Your task to perform on an android device: delete location history Image 0: 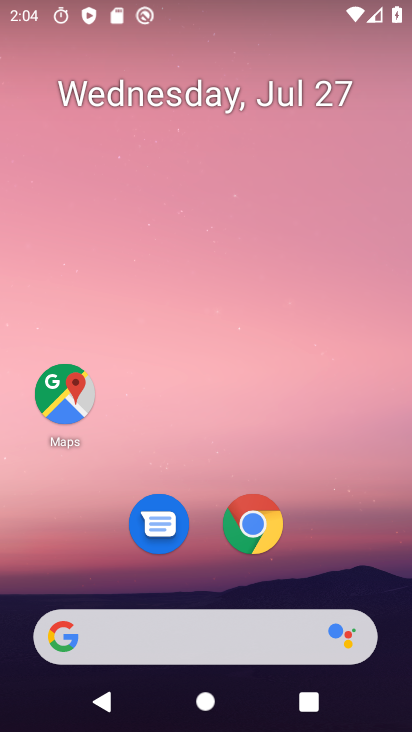
Step 0: drag from (334, 543) to (349, 477)
Your task to perform on an android device: delete location history Image 1: 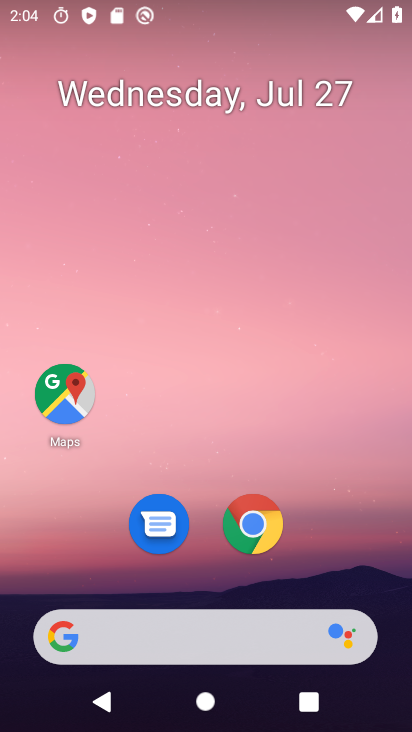
Step 1: click (72, 387)
Your task to perform on an android device: delete location history Image 2: 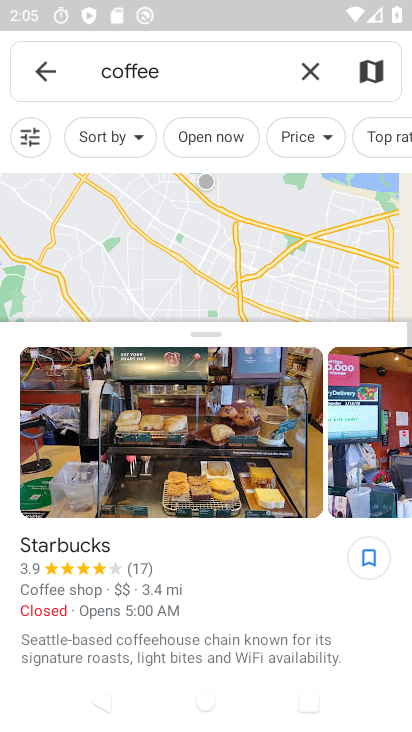
Step 2: click (48, 69)
Your task to perform on an android device: delete location history Image 3: 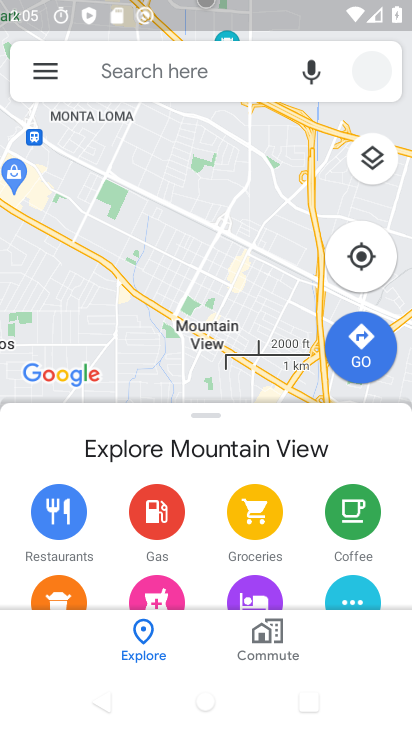
Step 3: click (48, 68)
Your task to perform on an android device: delete location history Image 4: 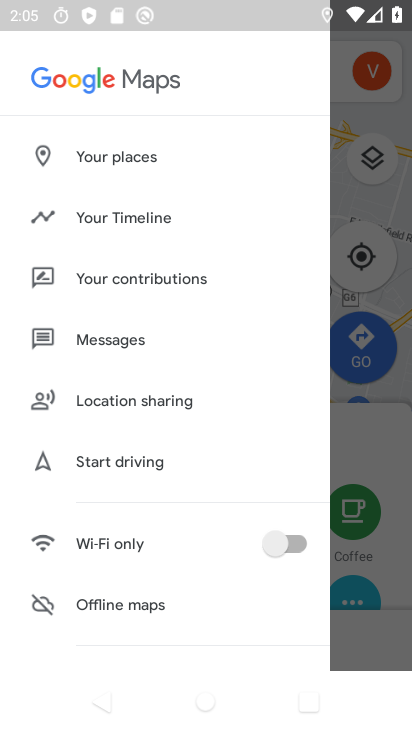
Step 4: click (138, 203)
Your task to perform on an android device: delete location history Image 5: 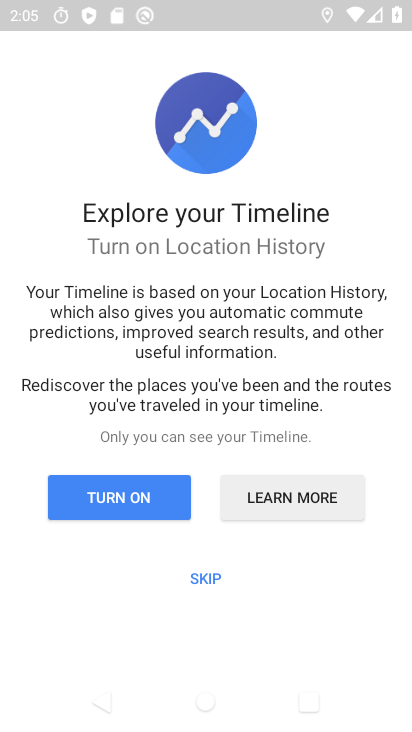
Step 5: click (168, 491)
Your task to perform on an android device: delete location history Image 6: 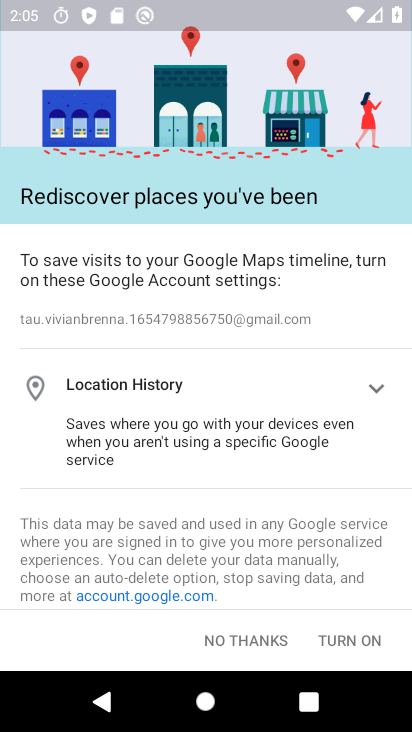
Step 6: click (345, 640)
Your task to perform on an android device: delete location history Image 7: 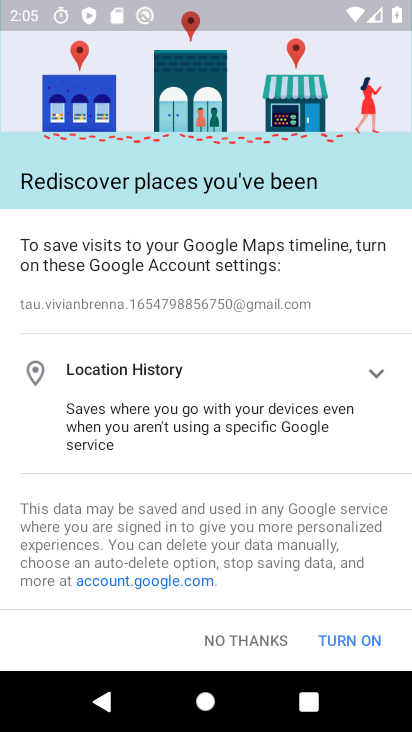
Step 7: click (345, 634)
Your task to perform on an android device: delete location history Image 8: 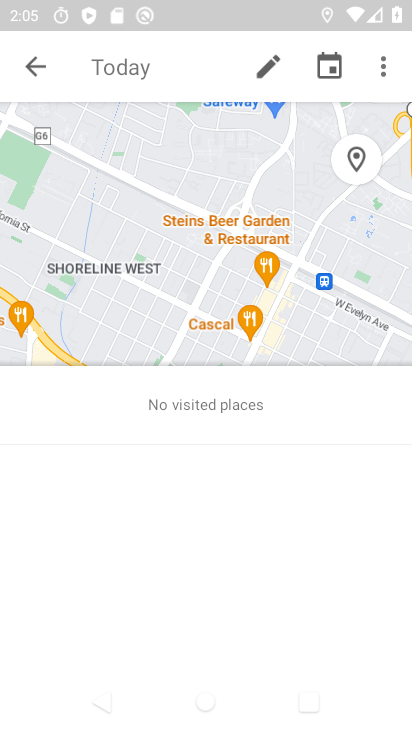
Step 8: click (380, 71)
Your task to perform on an android device: delete location history Image 9: 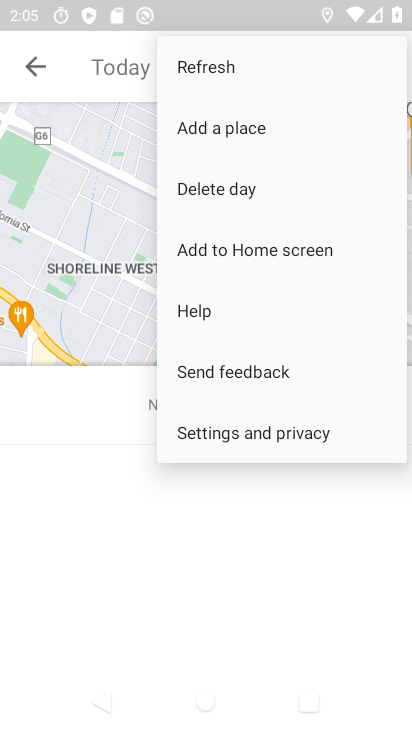
Step 9: click (290, 431)
Your task to perform on an android device: delete location history Image 10: 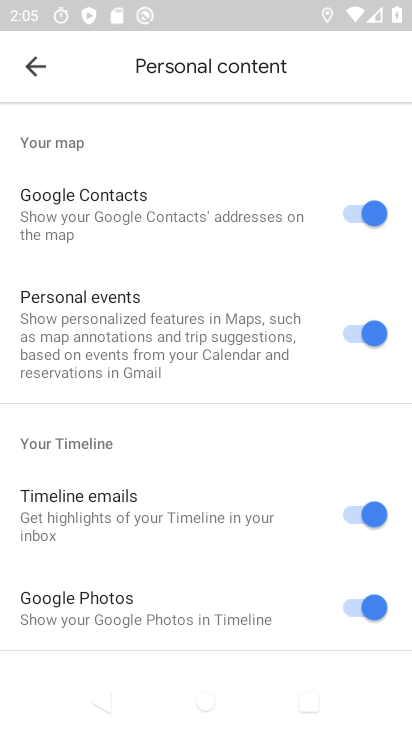
Step 10: drag from (236, 547) to (245, 67)
Your task to perform on an android device: delete location history Image 11: 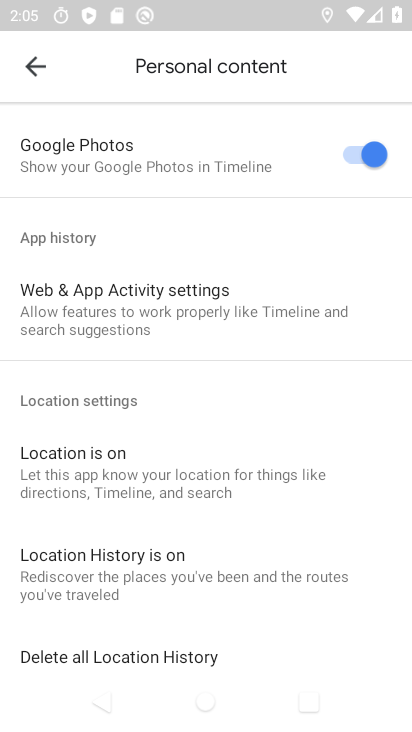
Step 11: drag from (268, 610) to (272, 185)
Your task to perform on an android device: delete location history Image 12: 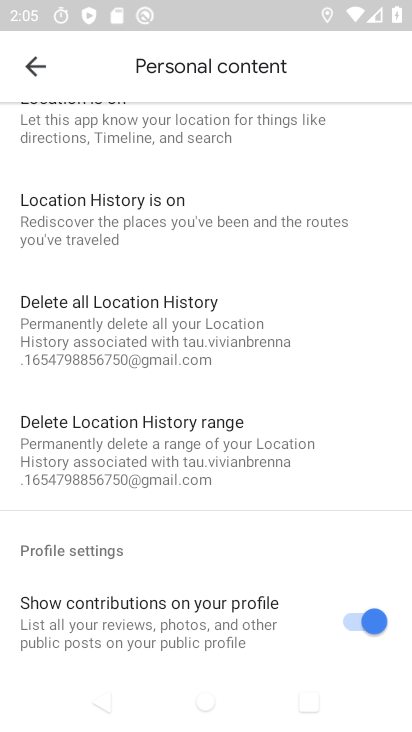
Step 12: click (243, 315)
Your task to perform on an android device: delete location history Image 13: 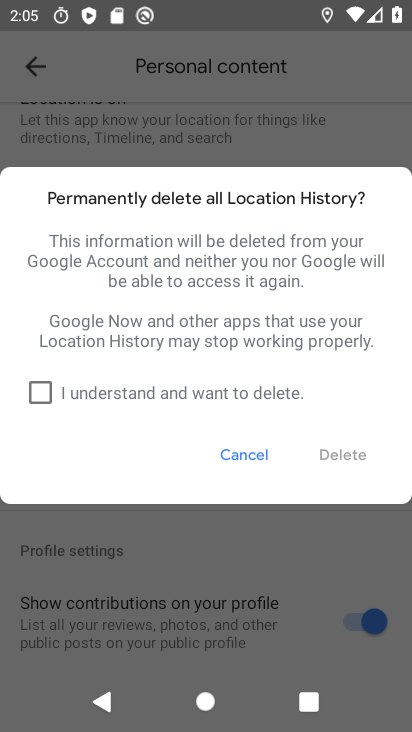
Step 13: click (44, 386)
Your task to perform on an android device: delete location history Image 14: 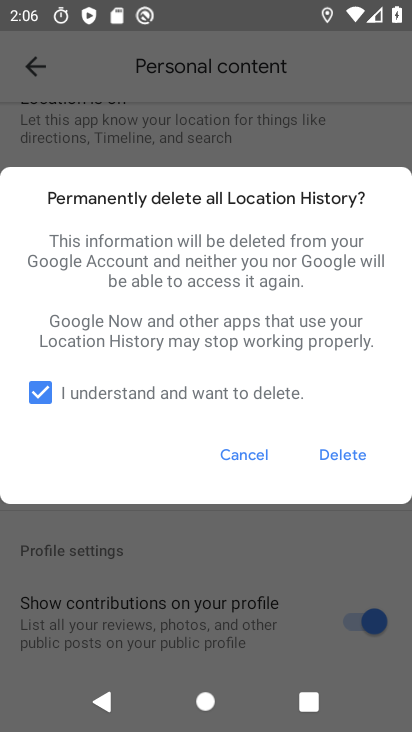
Step 14: click (328, 454)
Your task to perform on an android device: delete location history Image 15: 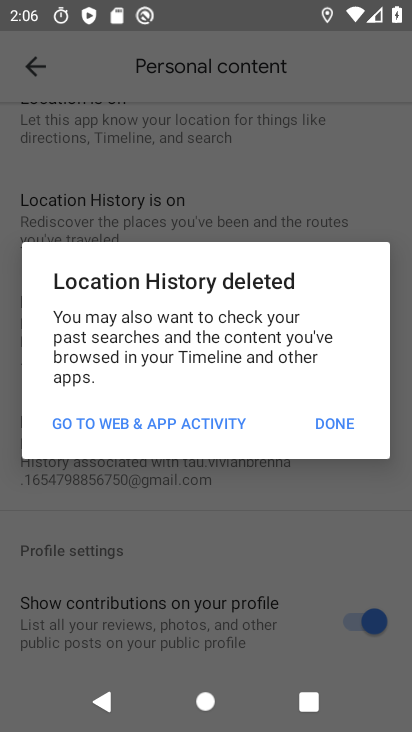
Step 15: click (344, 417)
Your task to perform on an android device: delete location history Image 16: 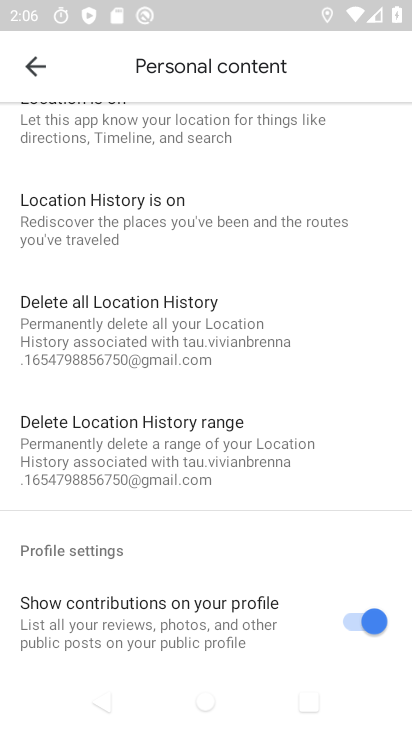
Step 16: task complete